Your task to perform on an android device: delete the emails in spam in the gmail app Image 0: 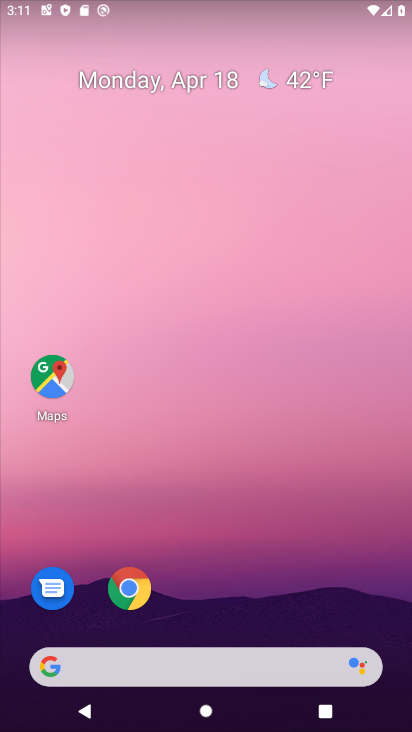
Step 0: drag from (140, 717) to (163, 10)
Your task to perform on an android device: delete the emails in spam in the gmail app Image 1: 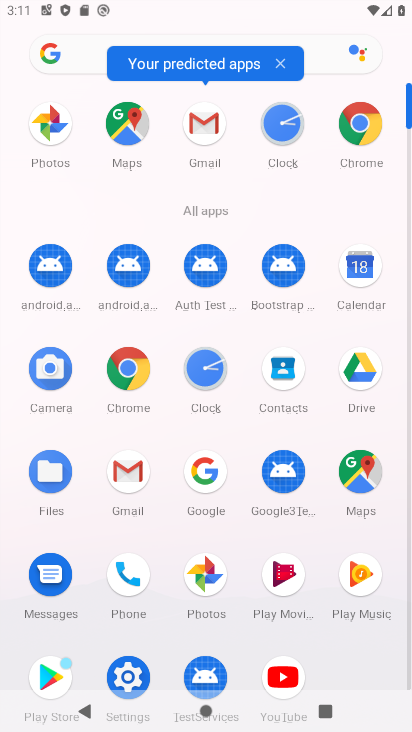
Step 1: click (211, 134)
Your task to perform on an android device: delete the emails in spam in the gmail app Image 2: 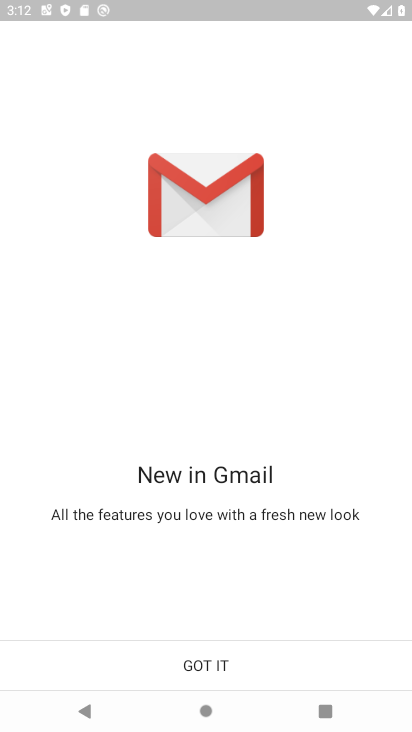
Step 2: click (199, 679)
Your task to perform on an android device: delete the emails in spam in the gmail app Image 3: 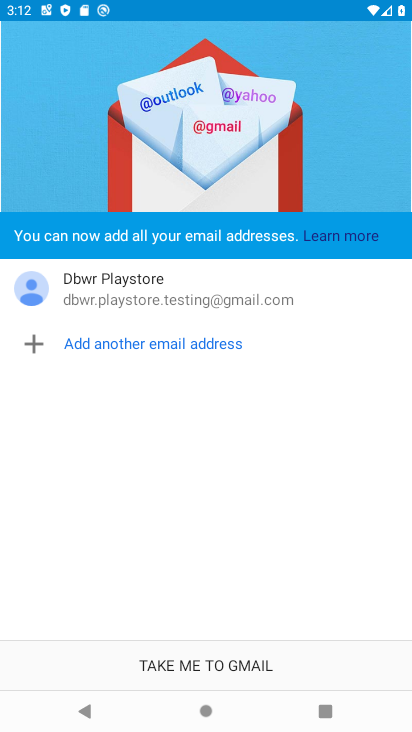
Step 3: click (199, 679)
Your task to perform on an android device: delete the emails in spam in the gmail app Image 4: 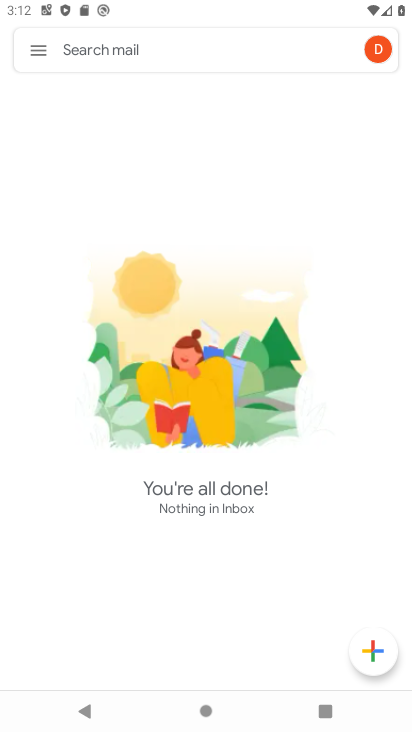
Step 4: click (39, 47)
Your task to perform on an android device: delete the emails in spam in the gmail app Image 5: 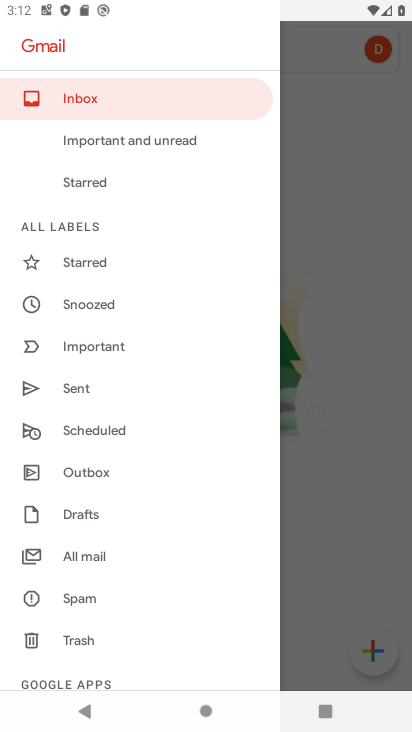
Step 5: click (148, 586)
Your task to perform on an android device: delete the emails in spam in the gmail app Image 6: 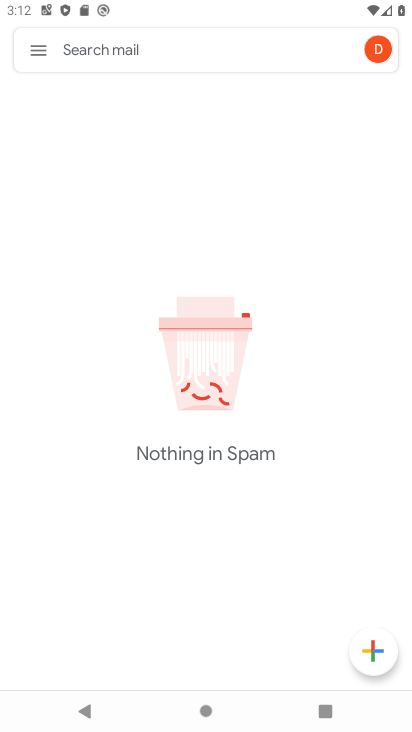
Step 6: task complete